Your task to perform on an android device: open chrome and create a bookmark for the current page Image 0: 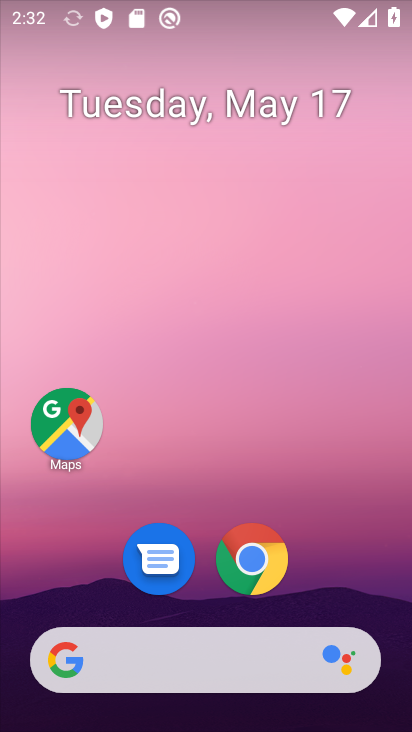
Step 0: drag from (319, 572) to (264, 173)
Your task to perform on an android device: open chrome and create a bookmark for the current page Image 1: 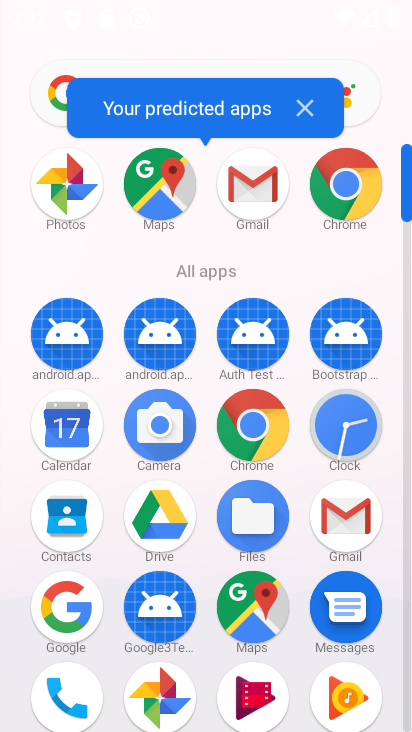
Step 1: click (342, 173)
Your task to perform on an android device: open chrome and create a bookmark for the current page Image 2: 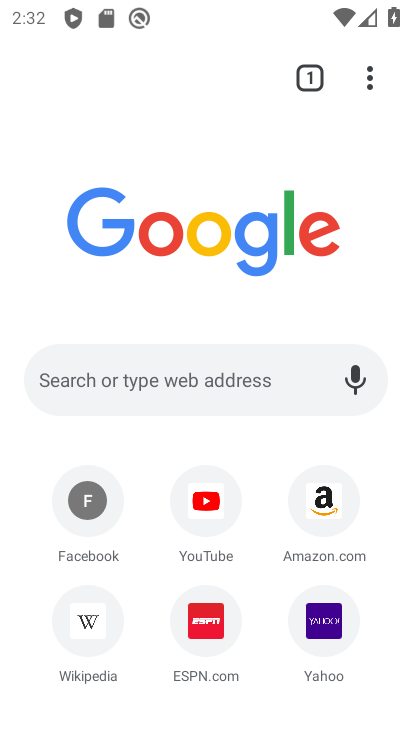
Step 2: click (374, 84)
Your task to perform on an android device: open chrome and create a bookmark for the current page Image 3: 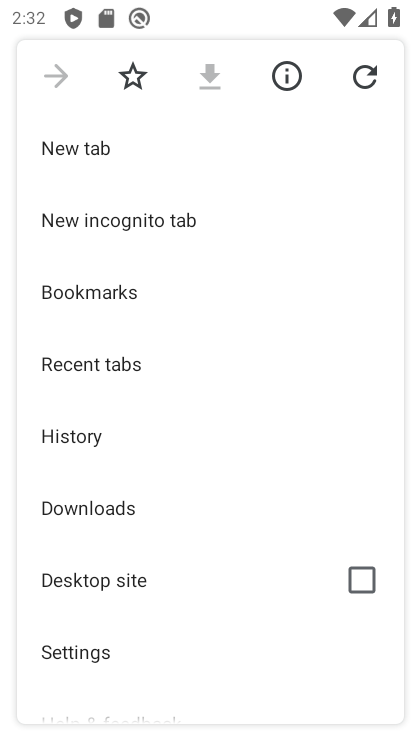
Step 3: click (126, 85)
Your task to perform on an android device: open chrome and create a bookmark for the current page Image 4: 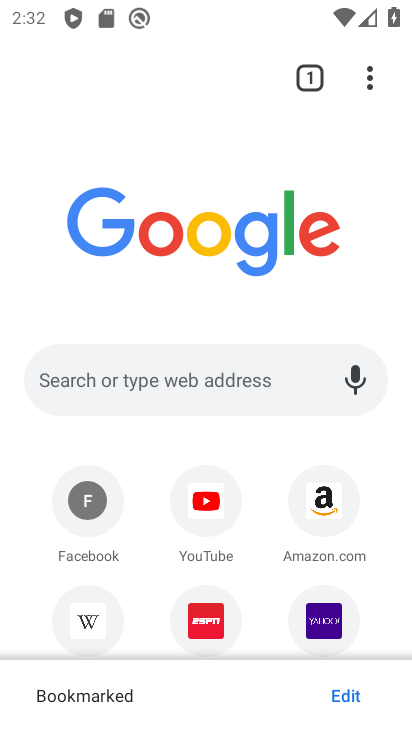
Step 4: task complete